Your task to perform on an android device: What is the recent news? Image 0: 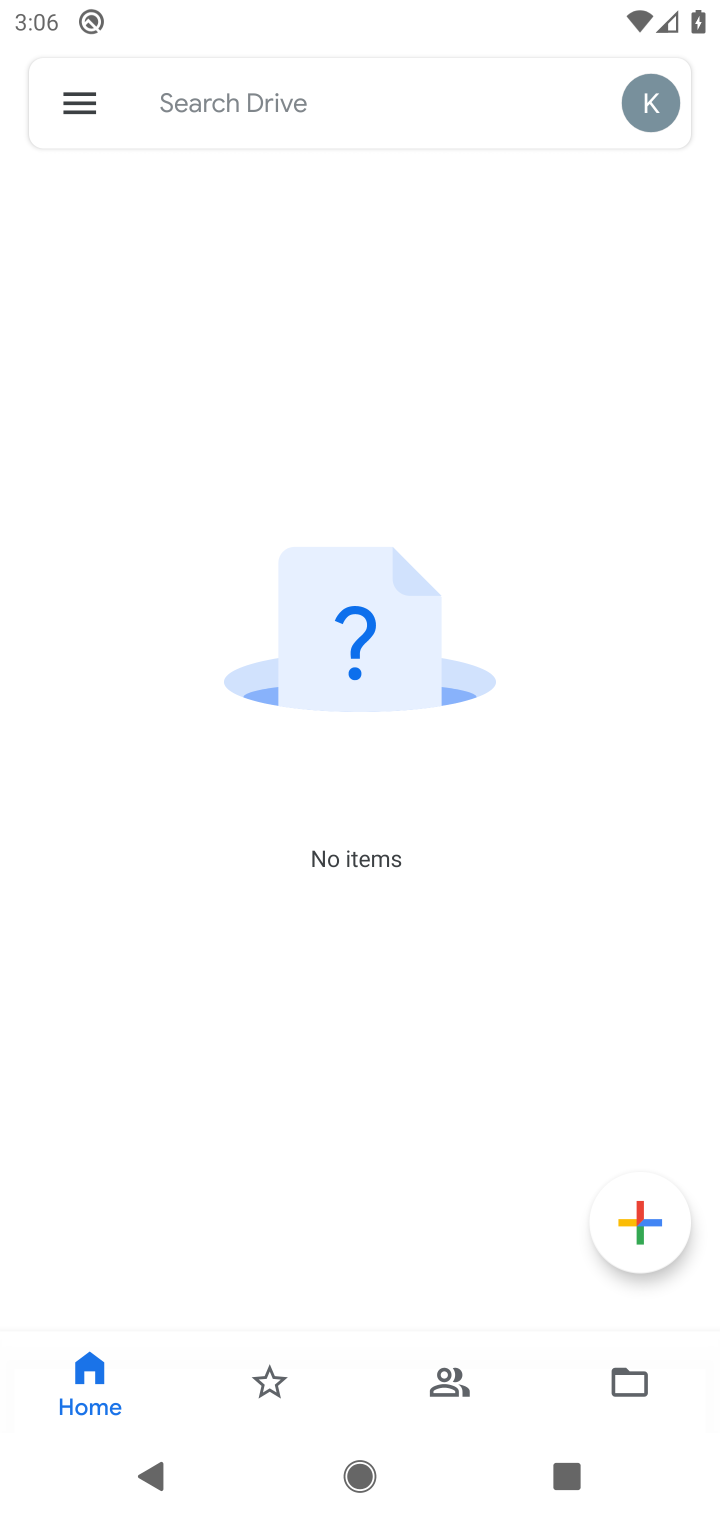
Step 0: press home button
Your task to perform on an android device: What is the recent news? Image 1: 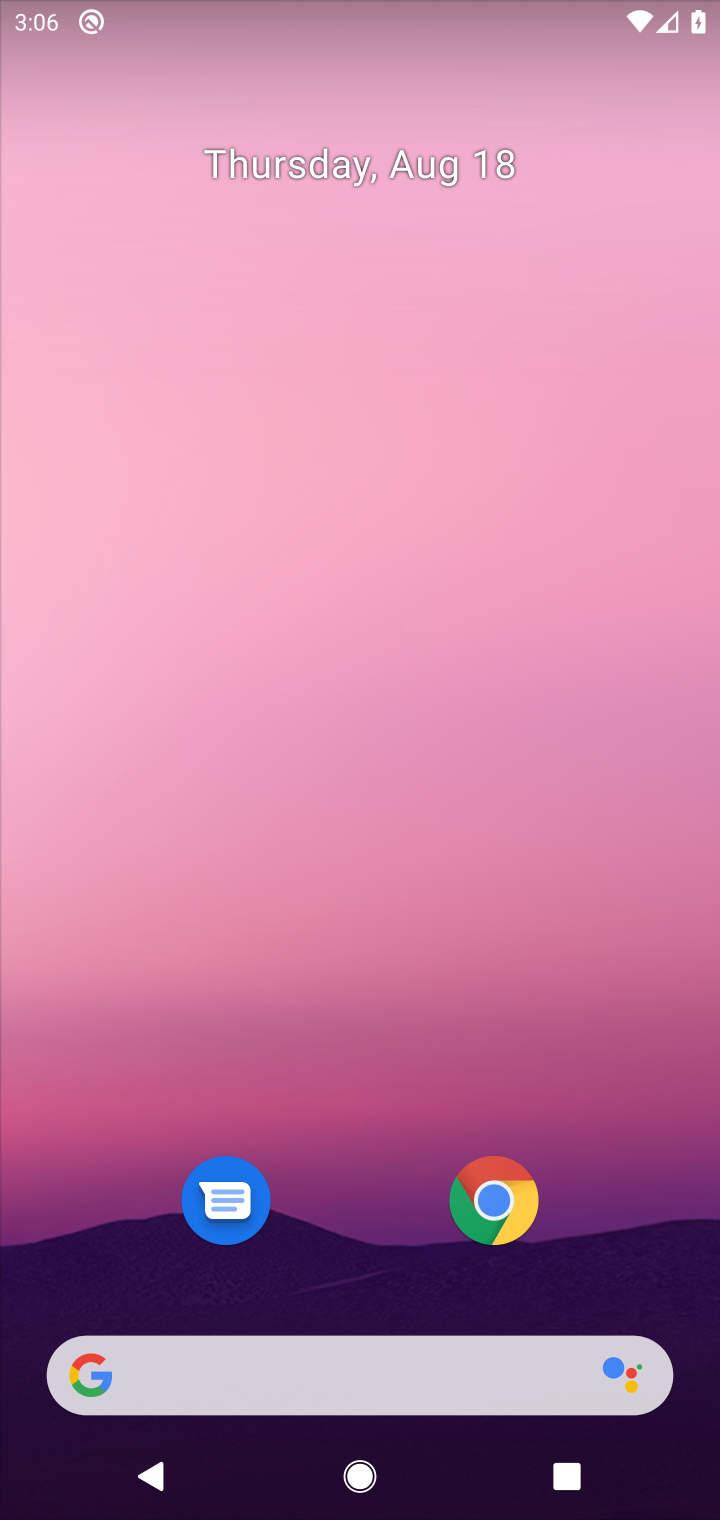
Step 1: drag from (395, 1196) to (579, 382)
Your task to perform on an android device: What is the recent news? Image 2: 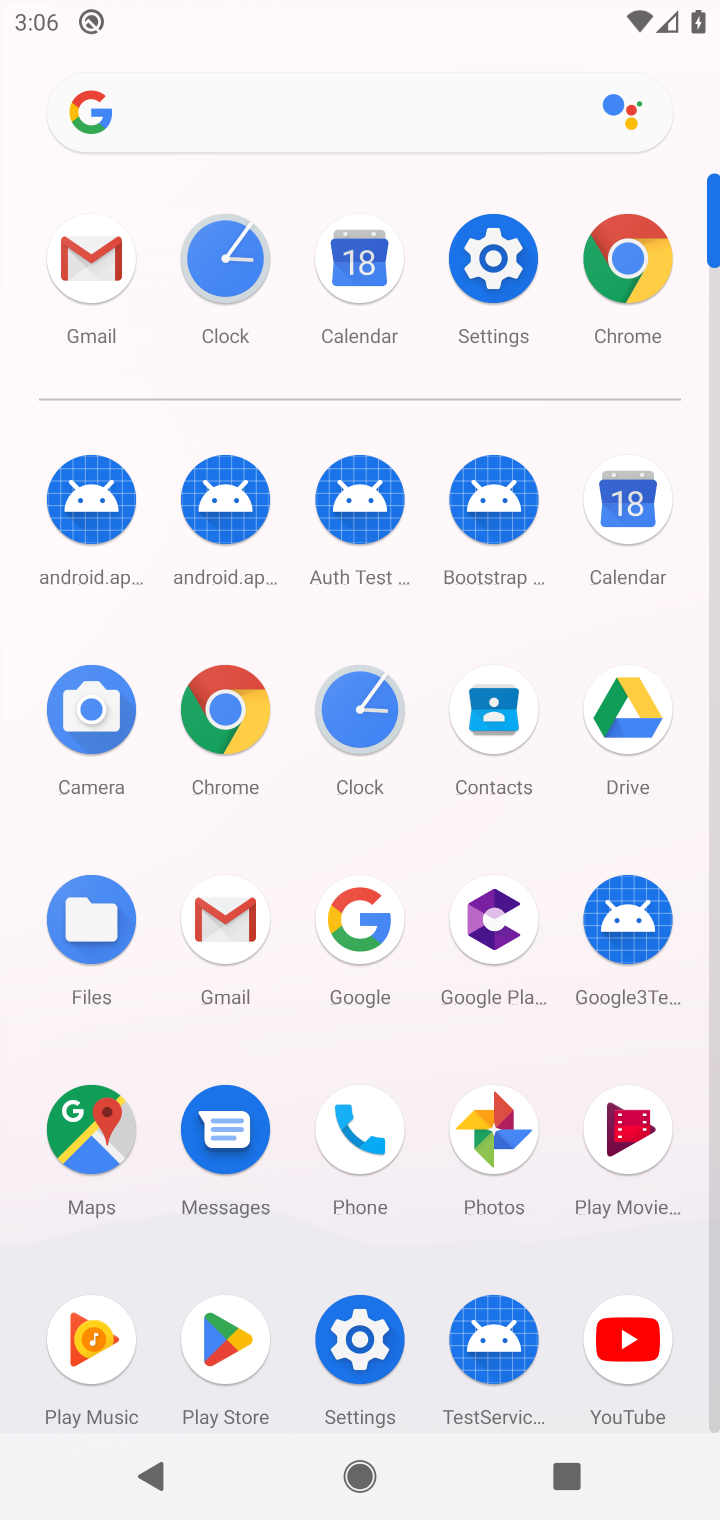
Step 2: click (616, 258)
Your task to perform on an android device: What is the recent news? Image 3: 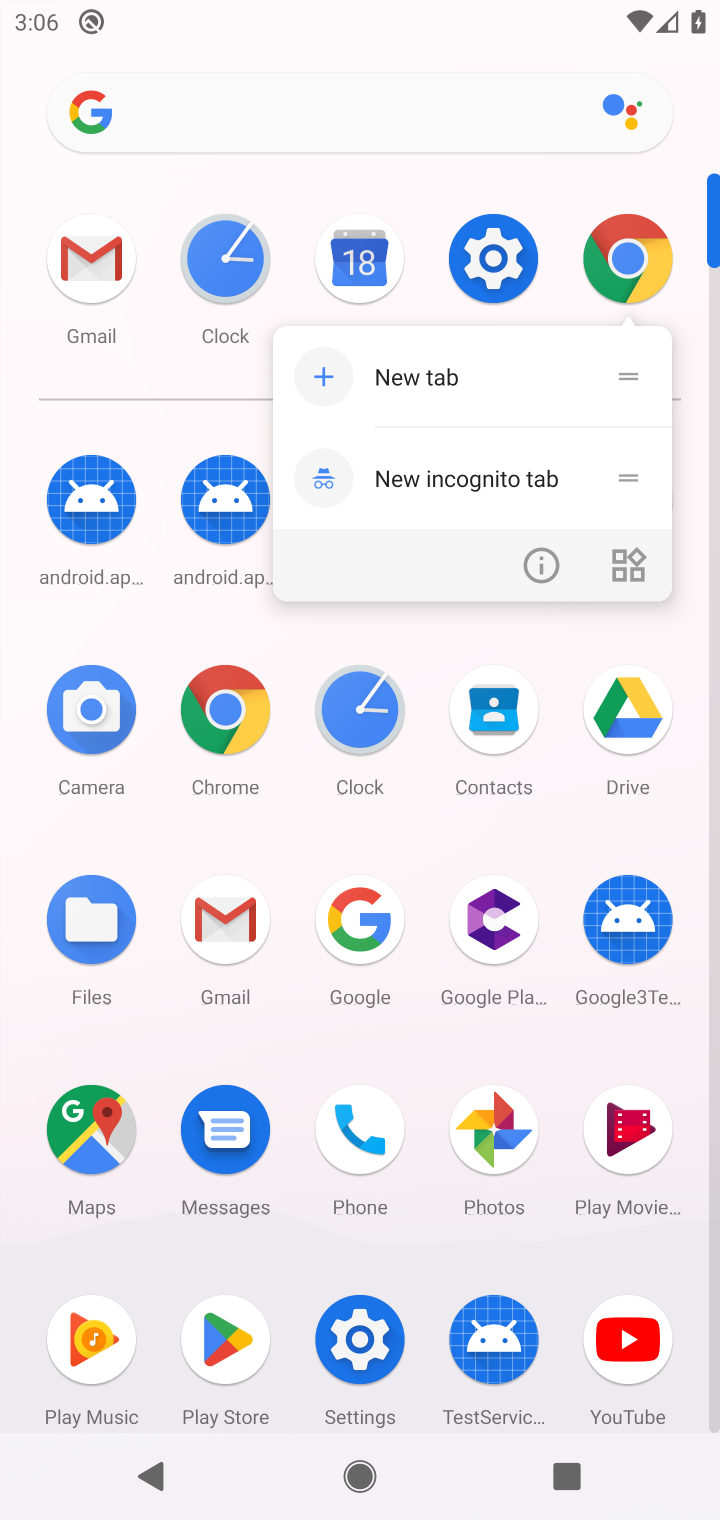
Step 3: click (616, 258)
Your task to perform on an android device: What is the recent news? Image 4: 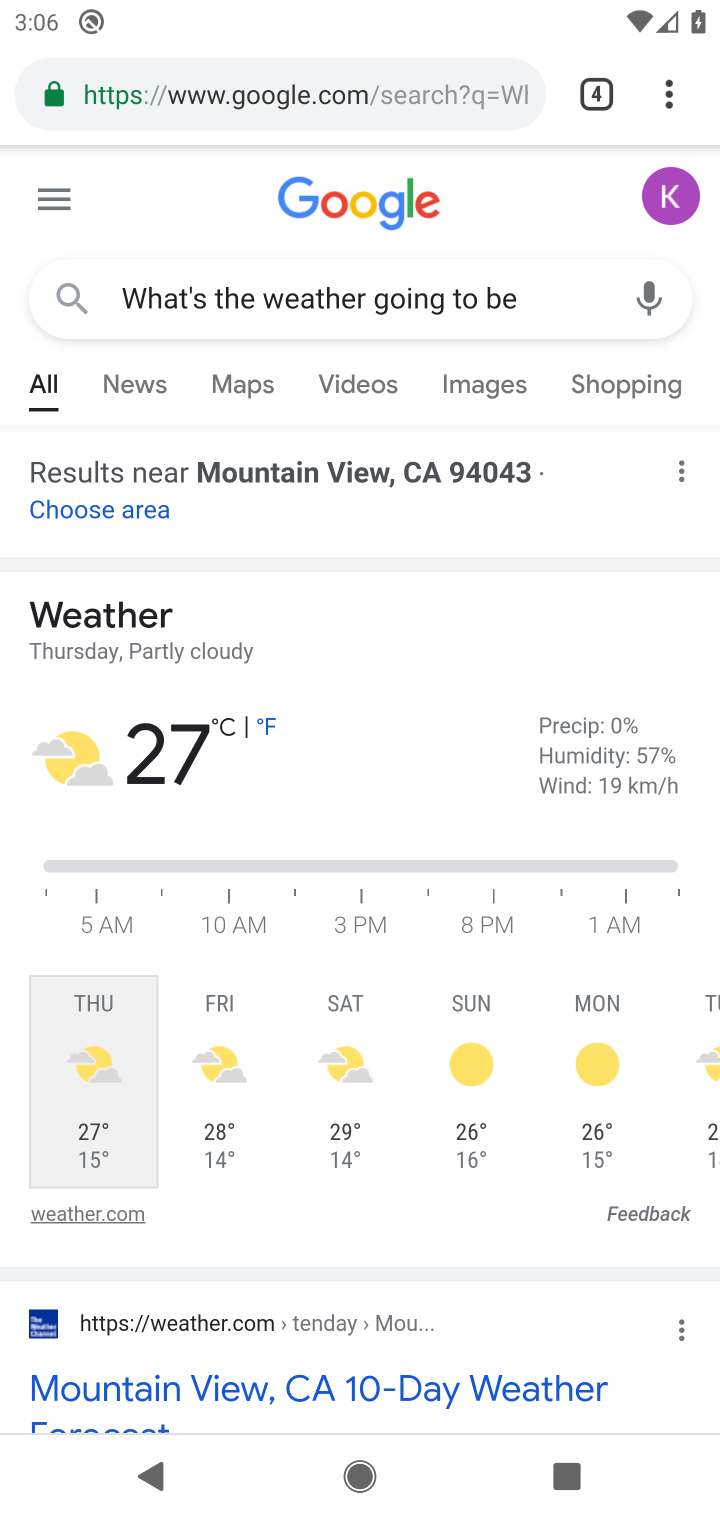
Step 4: click (225, 81)
Your task to perform on an android device: What is the recent news? Image 5: 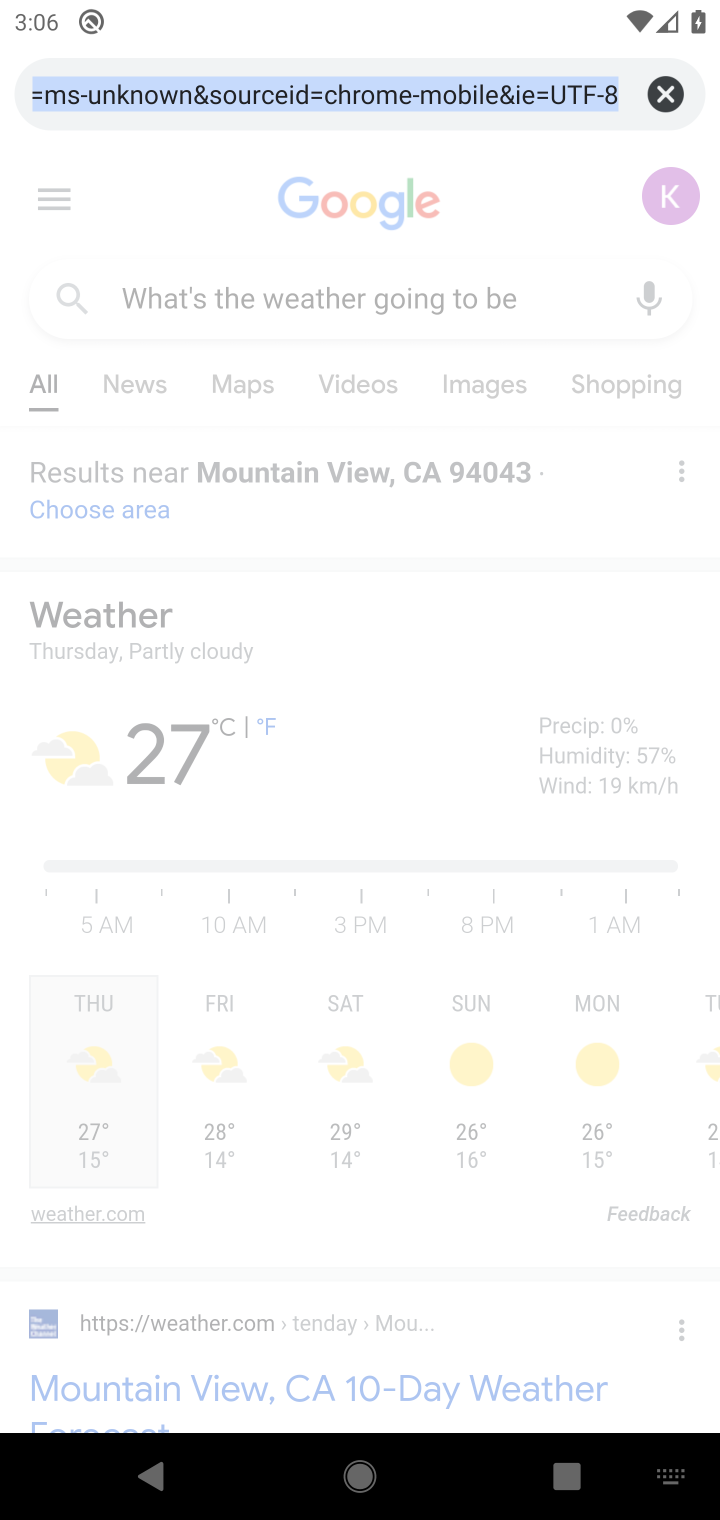
Step 5: type "What is the recent news?"
Your task to perform on an android device: What is the recent news? Image 6: 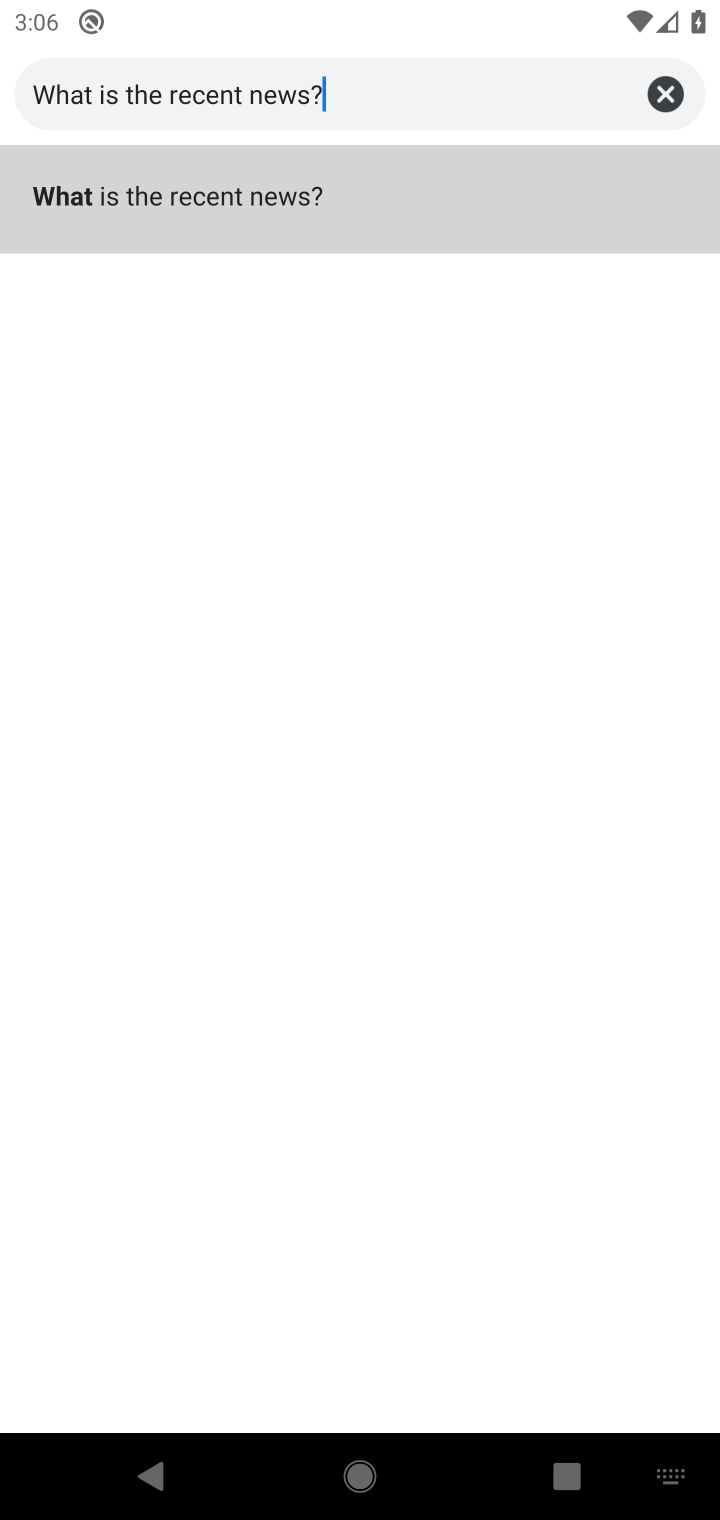
Step 6: type ""
Your task to perform on an android device: What is the recent news? Image 7: 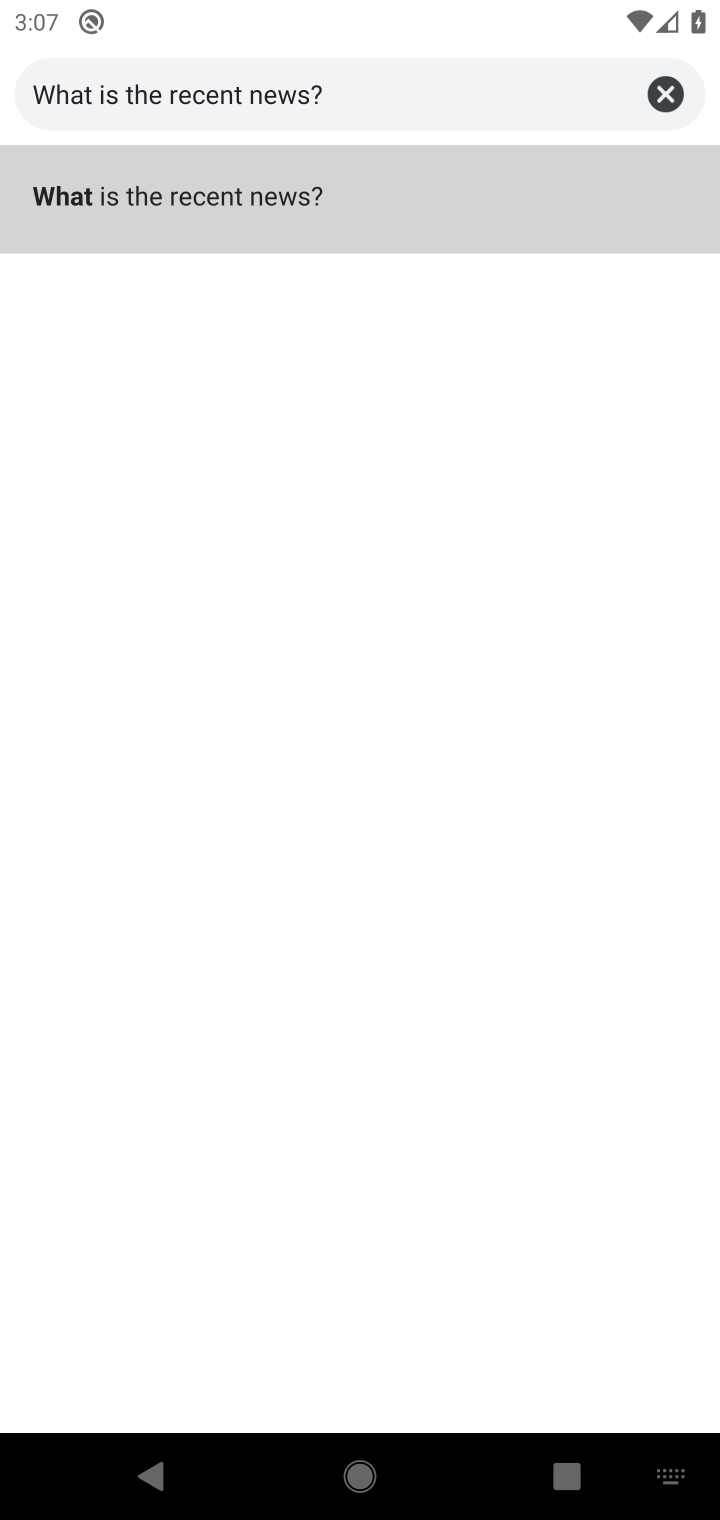
Step 7: click (273, 190)
Your task to perform on an android device: What is the recent news? Image 8: 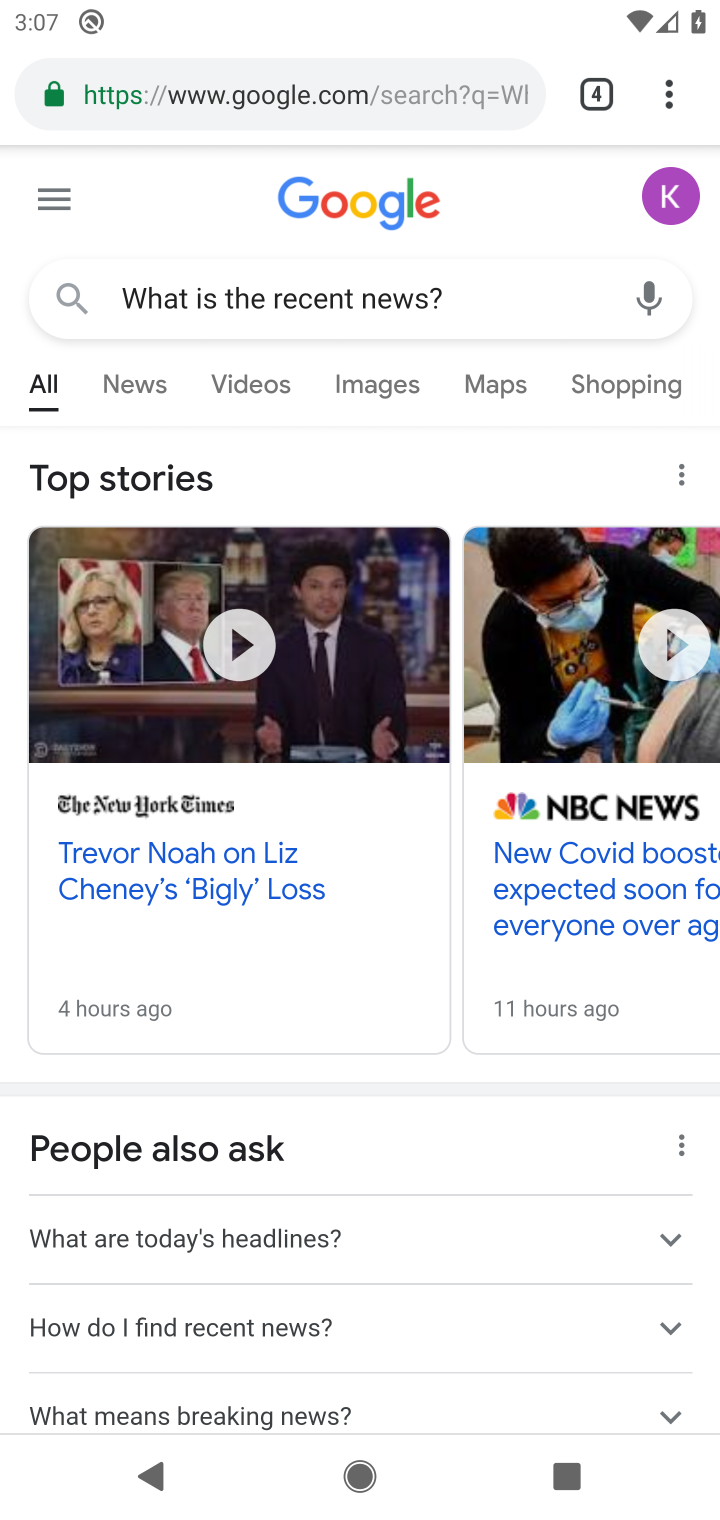
Step 8: click (102, 367)
Your task to perform on an android device: What is the recent news? Image 9: 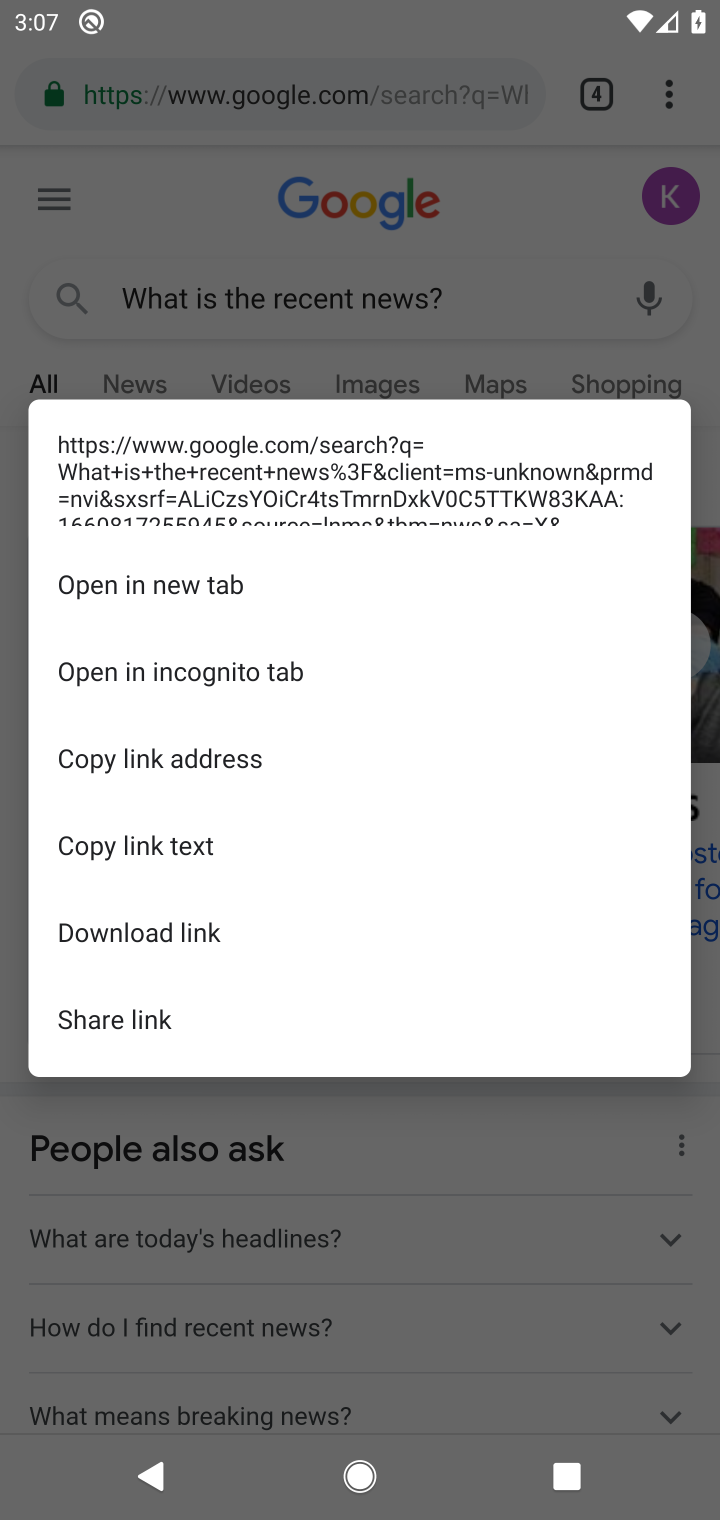
Step 9: click (448, 310)
Your task to perform on an android device: What is the recent news? Image 10: 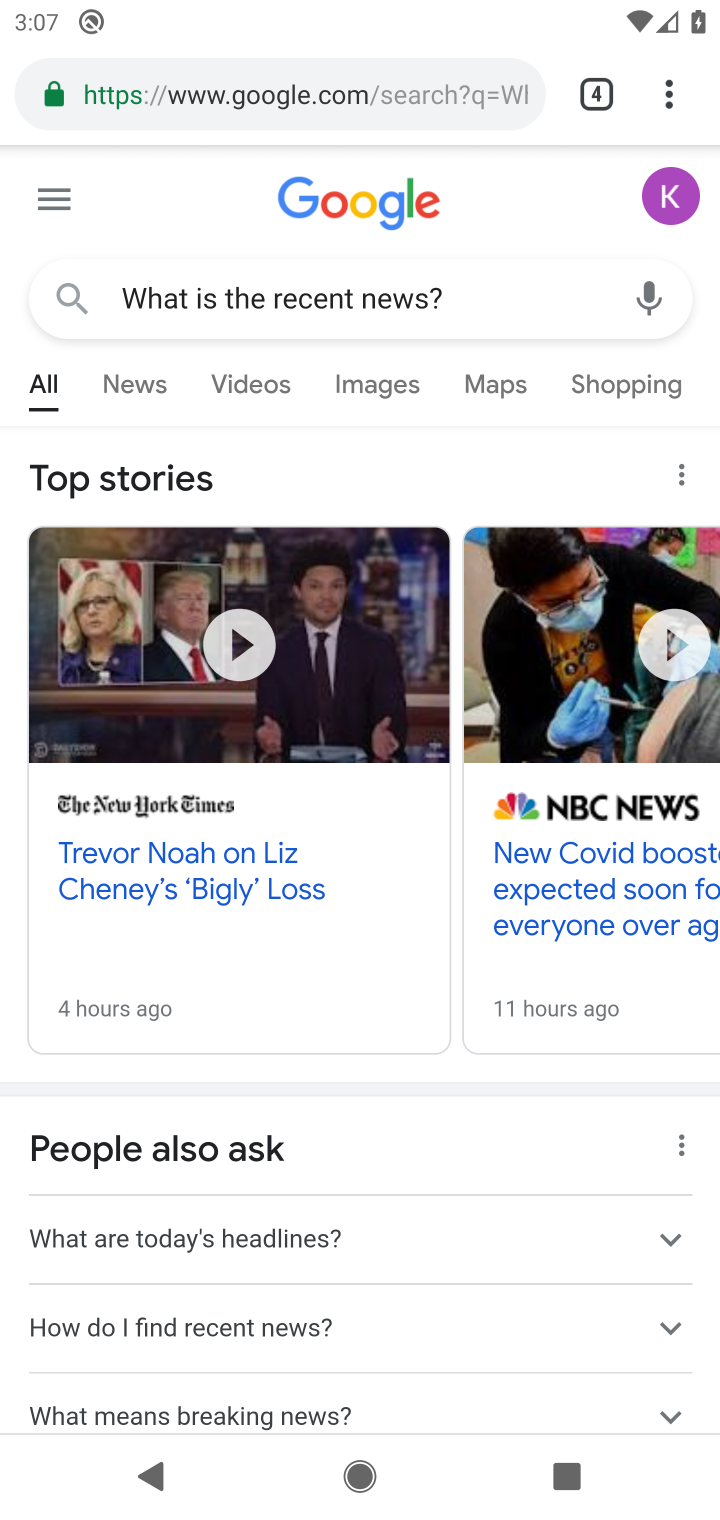
Step 10: task complete